Your task to perform on an android device: check android version Image 0: 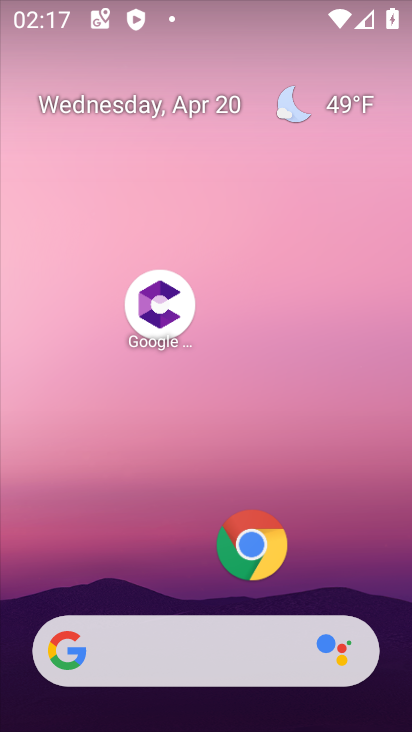
Step 0: drag from (172, 583) to (228, 27)
Your task to perform on an android device: check android version Image 1: 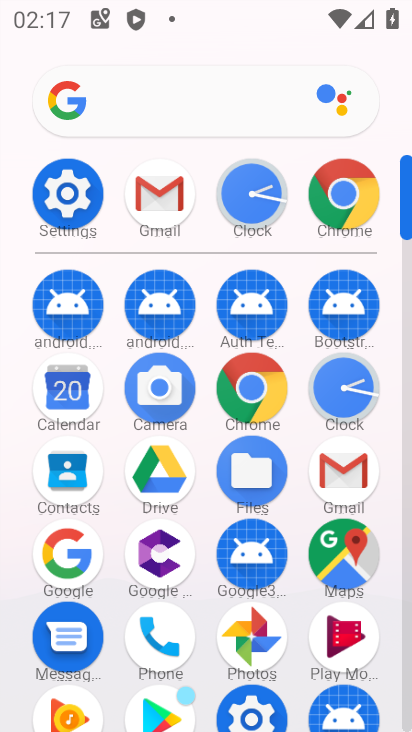
Step 1: click (68, 195)
Your task to perform on an android device: check android version Image 2: 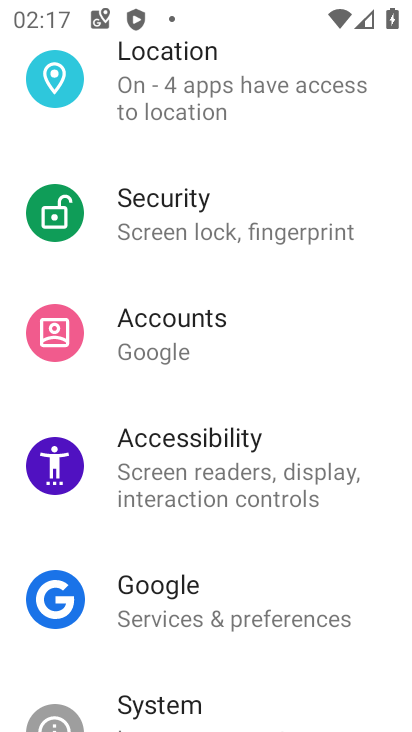
Step 2: drag from (234, 650) to (263, 509)
Your task to perform on an android device: check android version Image 3: 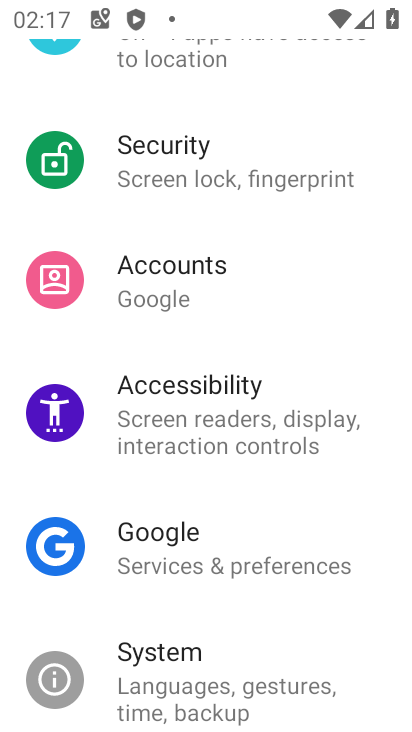
Step 3: drag from (270, 625) to (327, 459)
Your task to perform on an android device: check android version Image 4: 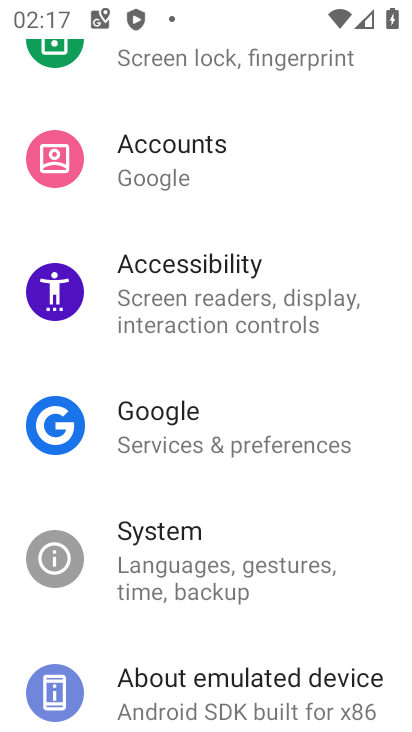
Step 4: drag from (258, 615) to (309, 487)
Your task to perform on an android device: check android version Image 5: 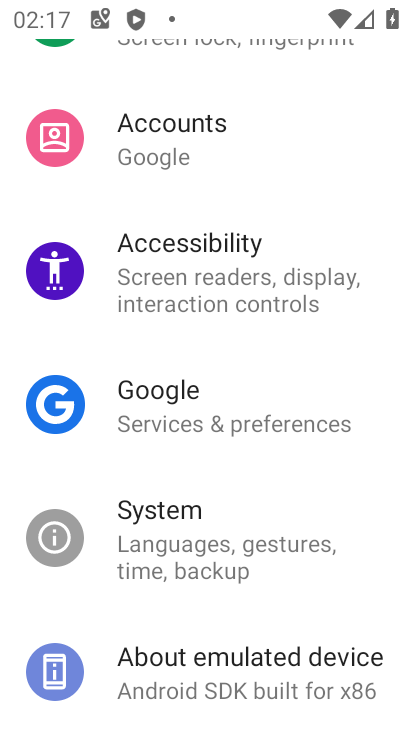
Step 5: click (235, 657)
Your task to perform on an android device: check android version Image 6: 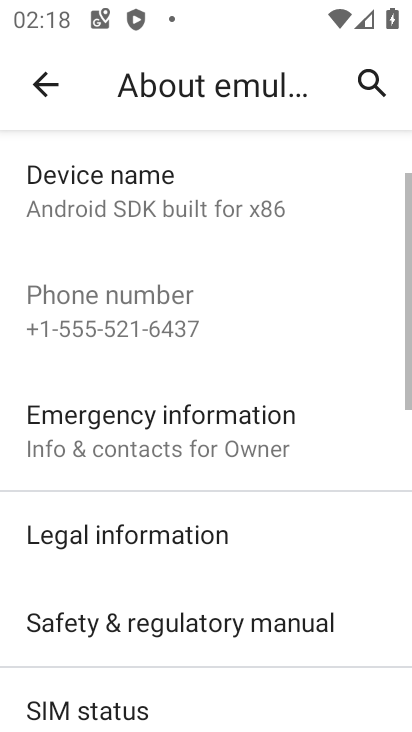
Step 6: drag from (222, 581) to (287, 393)
Your task to perform on an android device: check android version Image 7: 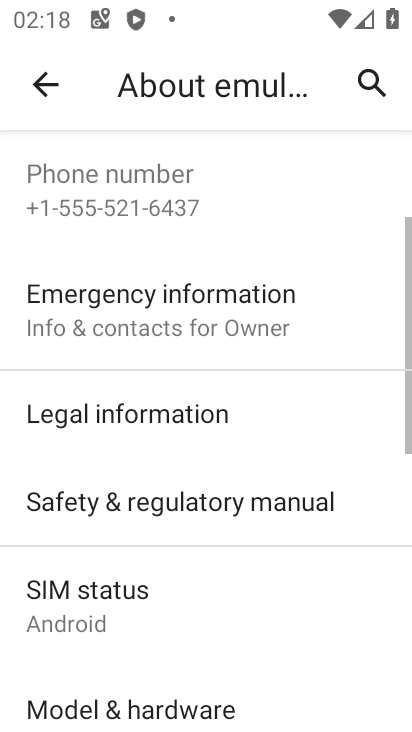
Step 7: drag from (204, 597) to (282, 422)
Your task to perform on an android device: check android version Image 8: 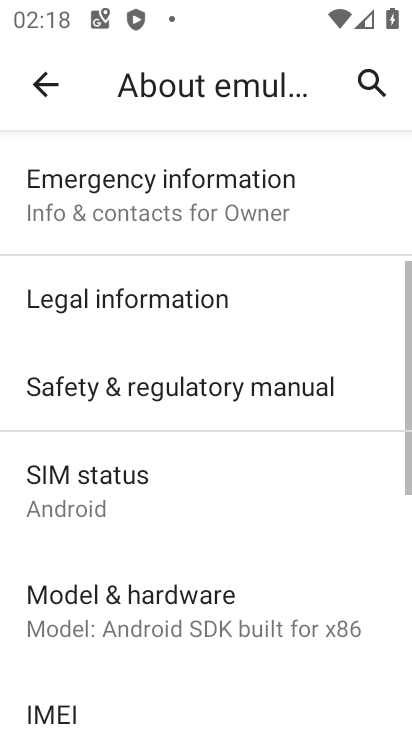
Step 8: drag from (224, 564) to (288, 389)
Your task to perform on an android device: check android version Image 9: 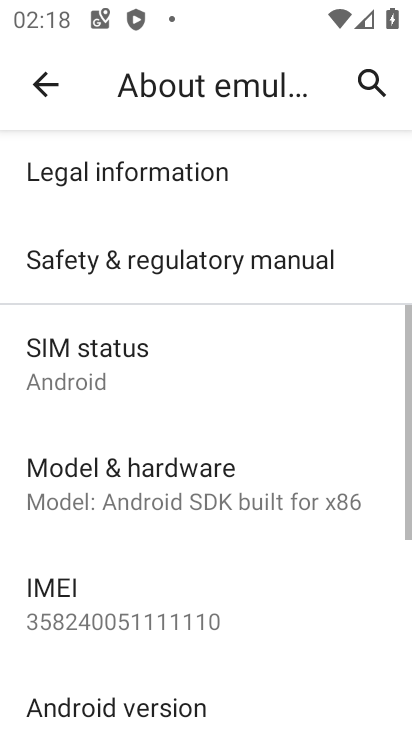
Step 9: drag from (216, 560) to (310, 405)
Your task to perform on an android device: check android version Image 10: 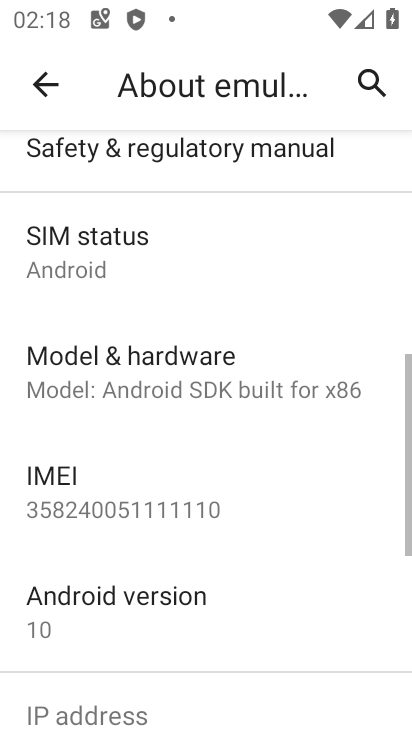
Step 10: click (182, 597)
Your task to perform on an android device: check android version Image 11: 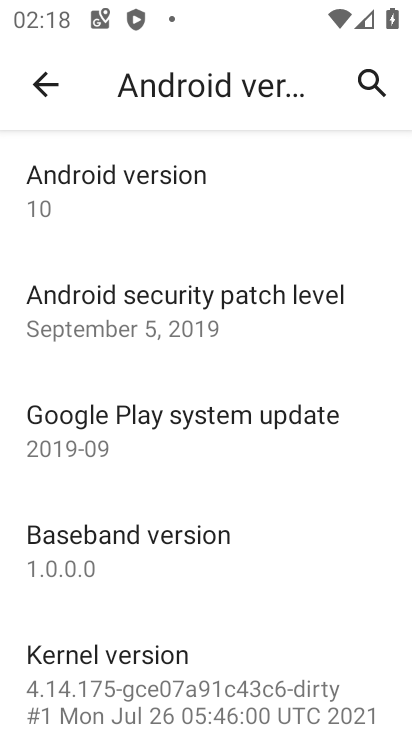
Step 11: task complete